Your task to perform on an android device: Do I have any events today? Image 0: 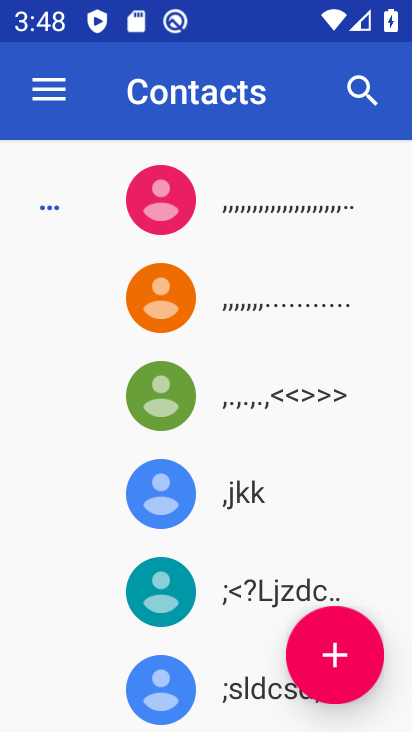
Step 0: press home button
Your task to perform on an android device: Do I have any events today? Image 1: 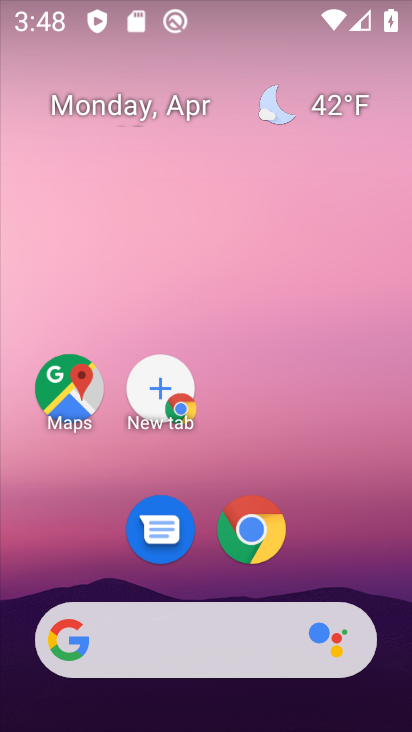
Step 1: drag from (179, 568) to (283, 11)
Your task to perform on an android device: Do I have any events today? Image 2: 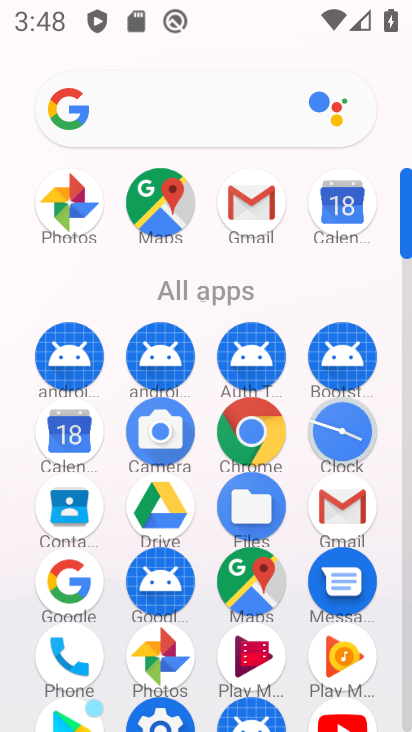
Step 2: click (71, 427)
Your task to perform on an android device: Do I have any events today? Image 3: 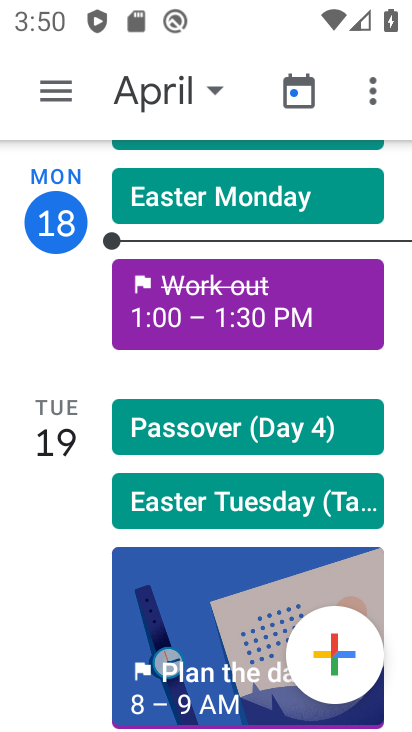
Step 3: drag from (196, 652) to (256, 431)
Your task to perform on an android device: Do I have any events today? Image 4: 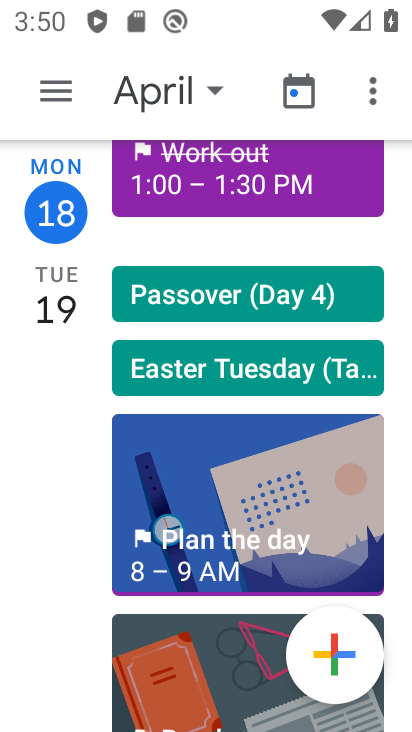
Step 4: drag from (227, 577) to (321, 123)
Your task to perform on an android device: Do I have any events today? Image 5: 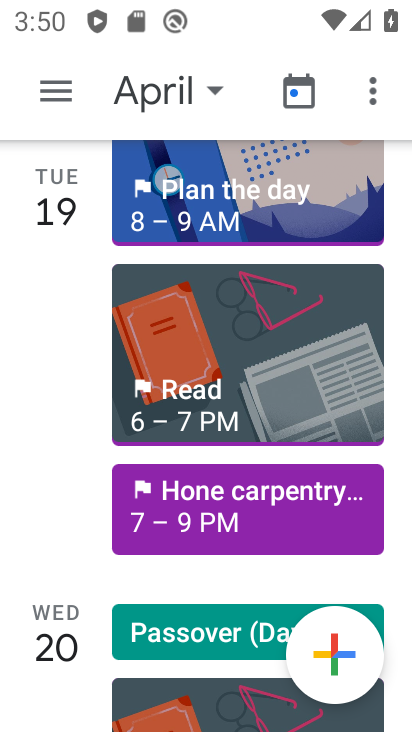
Step 5: drag from (267, 319) to (179, 693)
Your task to perform on an android device: Do I have any events today? Image 6: 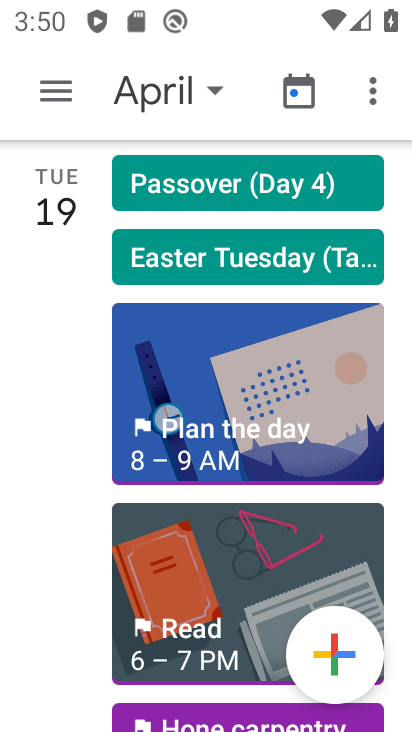
Step 6: drag from (205, 312) to (157, 663)
Your task to perform on an android device: Do I have any events today? Image 7: 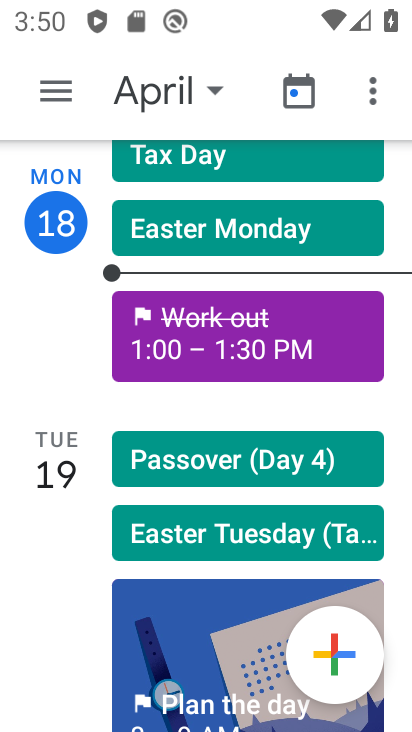
Step 7: click (206, 233)
Your task to perform on an android device: Do I have any events today? Image 8: 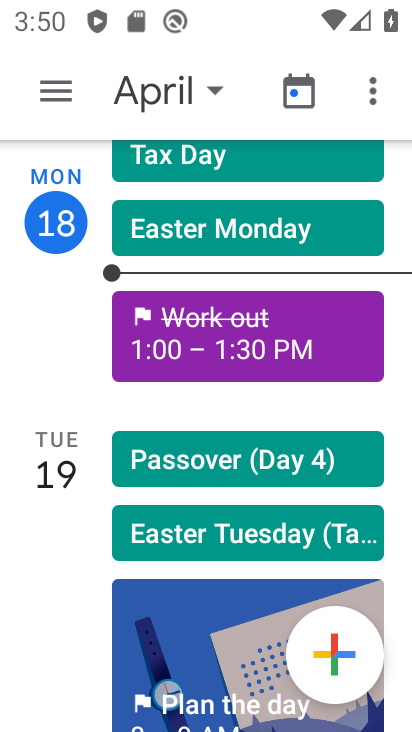
Step 8: click (212, 231)
Your task to perform on an android device: Do I have any events today? Image 9: 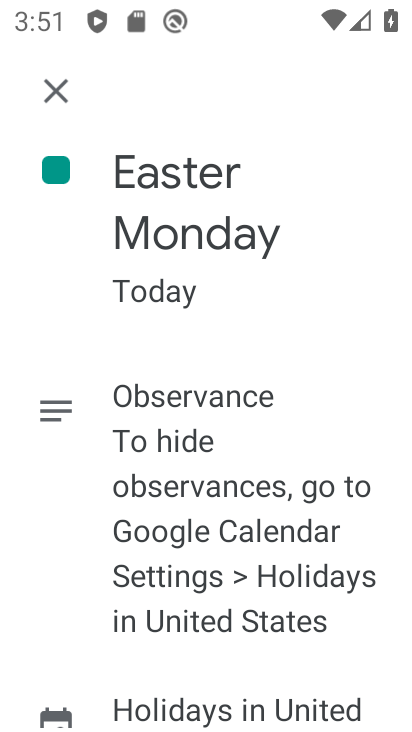
Step 9: task complete